Your task to perform on an android device: Open the stopwatch Image 0: 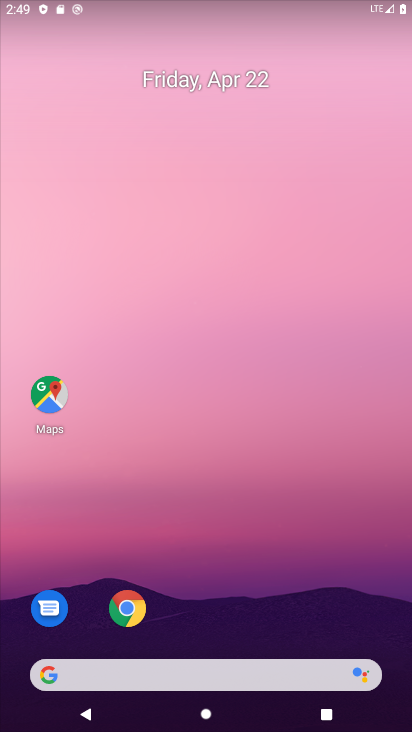
Step 0: drag from (229, 683) to (222, 193)
Your task to perform on an android device: Open the stopwatch Image 1: 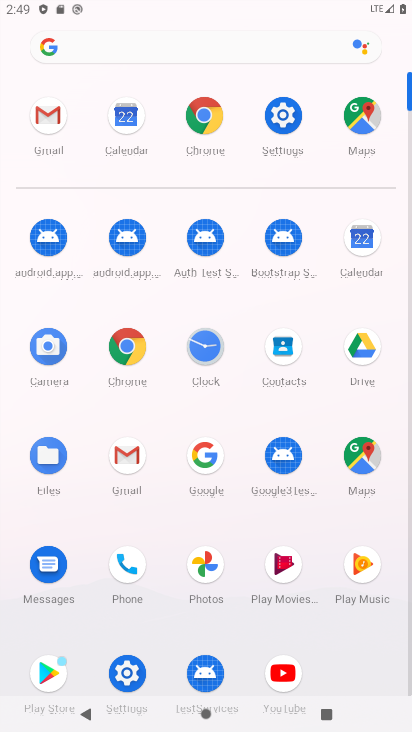
Step 1: click (205, 363)
Your task to perform on an android device: Open the stopwatch Image 2: 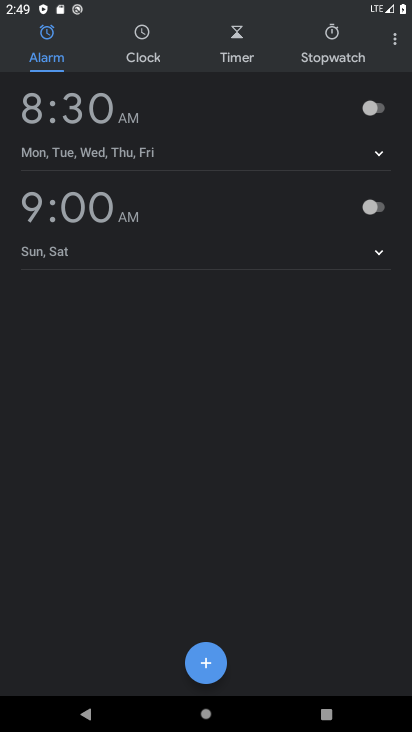
Step 2: click (310, 39)
Your task to perform on an android device: Open the stopwatch Image 3: 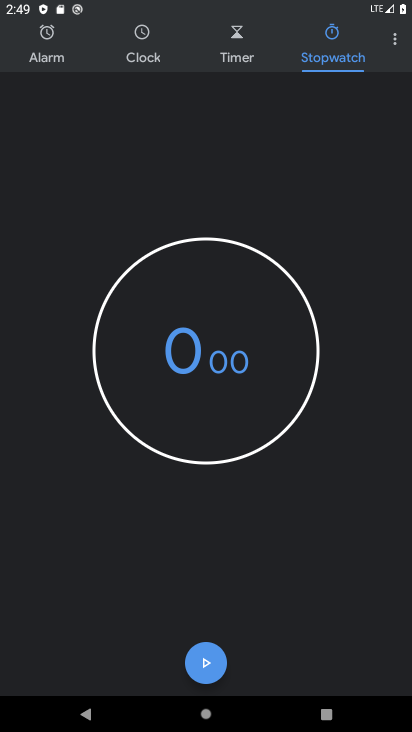
Step 3: task complete